Your task to perform on an android device: toggle notification dots Image 0: 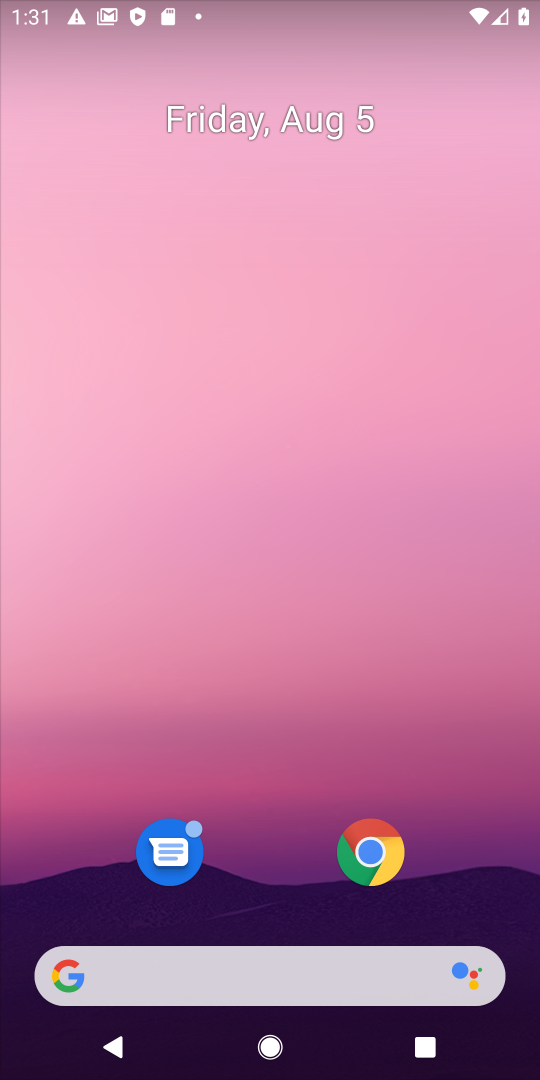
Step 0: drag from (240, 886) to (267, 68)
Your task to perform on an android device: toggle notification dots Image 1: 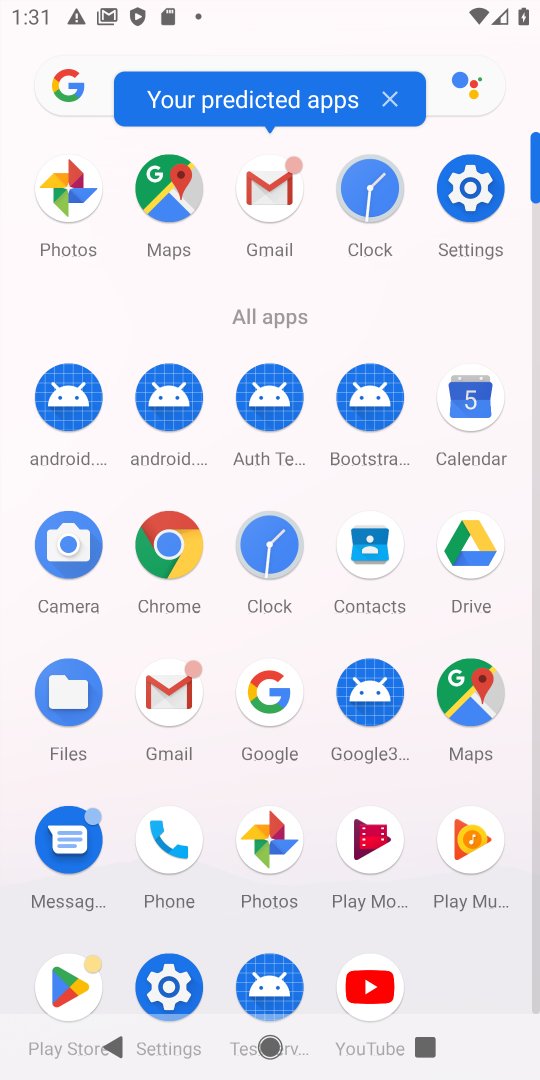
Step 1: click (478, 185)
Your task to perform on an android device: toggle notification dots Image 2: 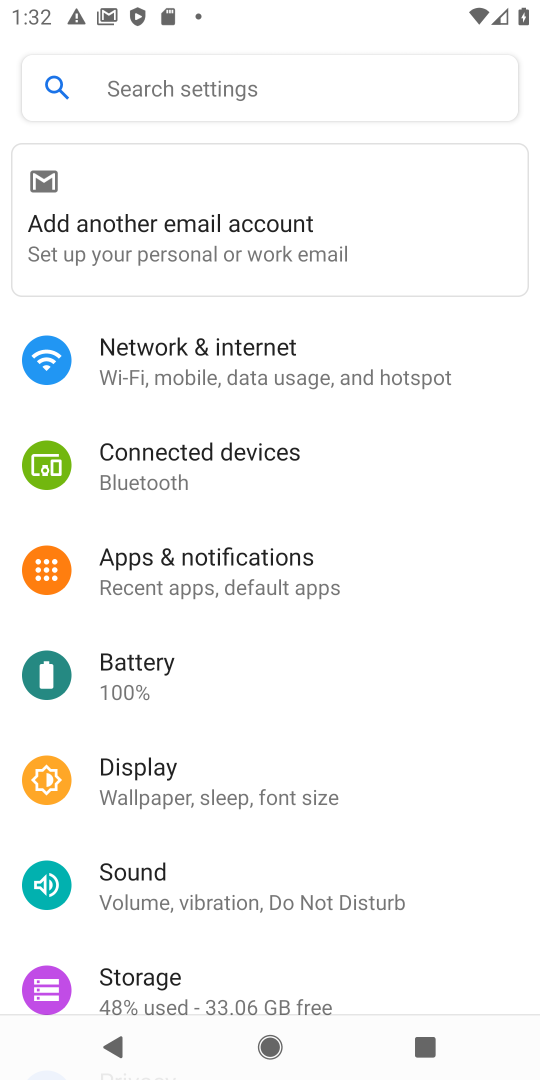
Step 2: click (212, 548)
Your task to perform on an android device: toggle notification dots Image 3: 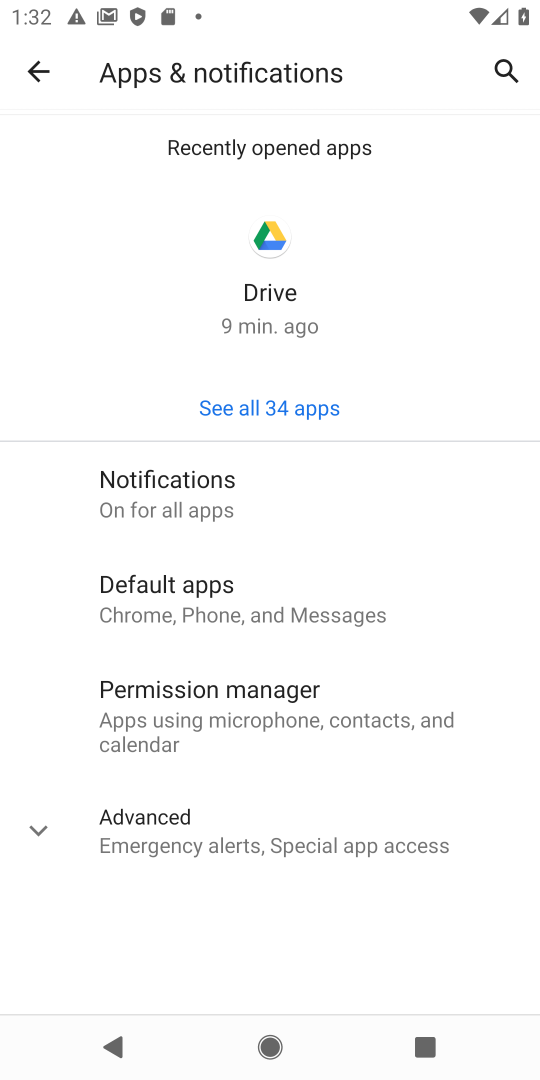
Step 3: click (190, 476)
Your task to perform on an android device: toggle notification dots Image 4: 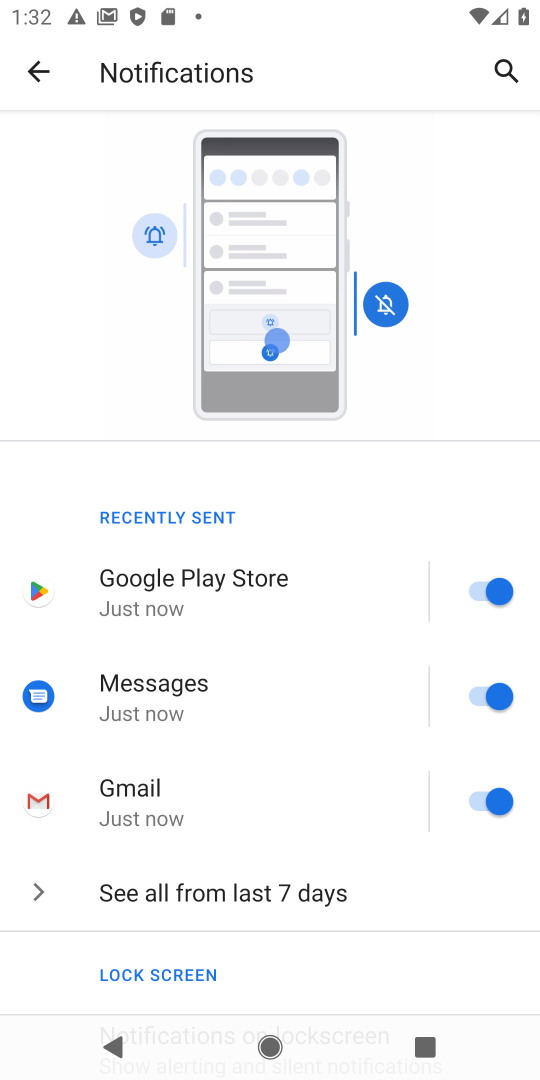
Step 4: drag from (284, 927) to (291, 429)
Your task to perform on an android device: toggle notification dots Image 5: 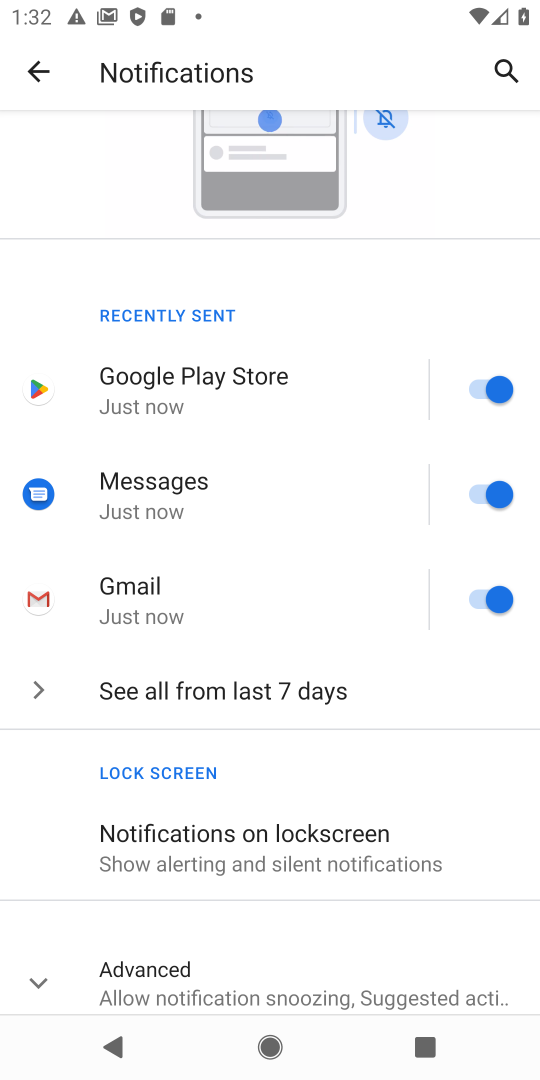
Step 5: click (39, 983)
Your task to perform on an android device: toggle notification dots Image 6: 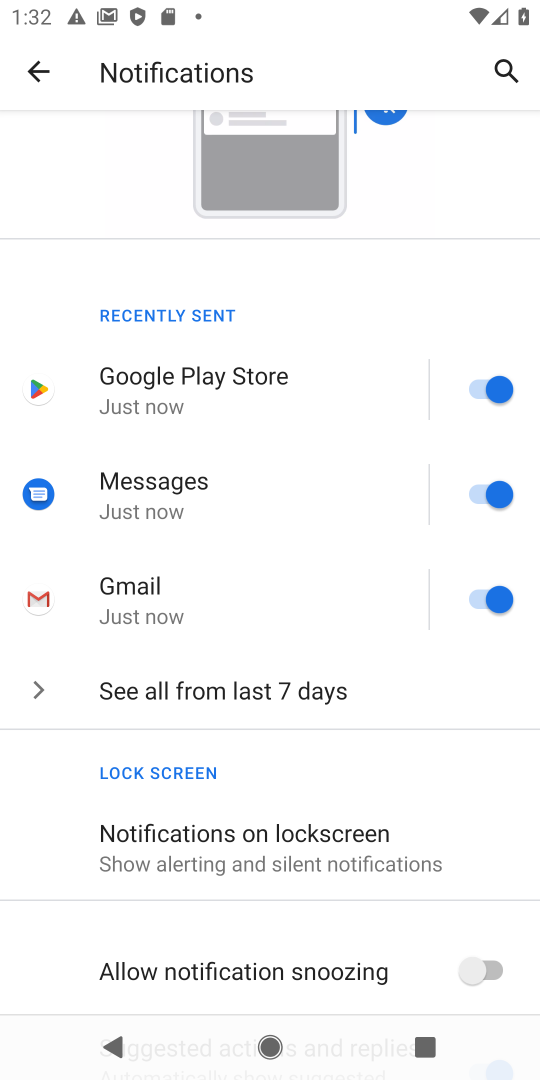
Step 6: drag from (189, 753) to (205, 314)
Your task to perform on an android device: toggle notification dots Image 7: 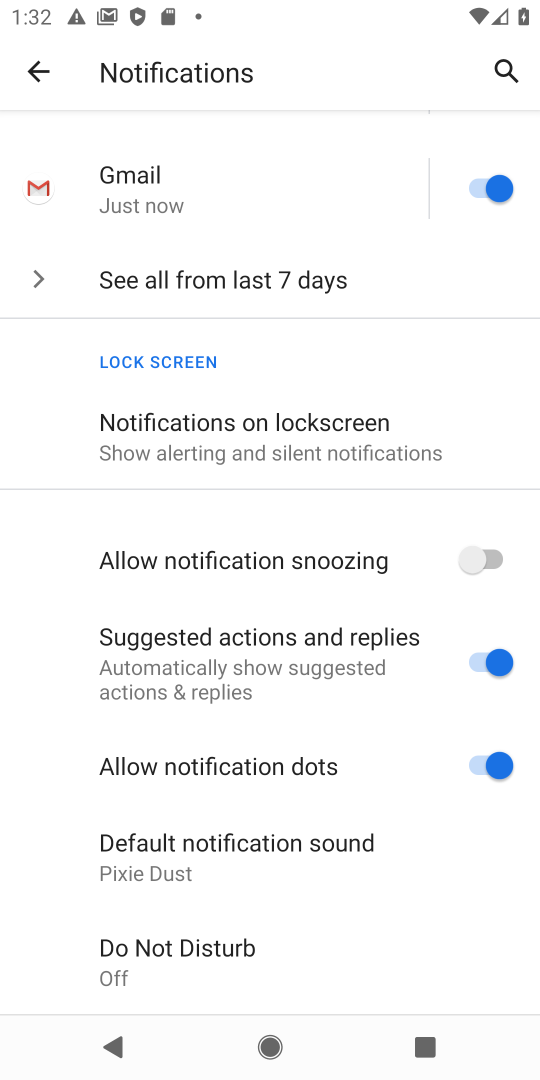
Step 7: click (492, 768)
Your task to perform on an android device: toggle notification dots Image 8: 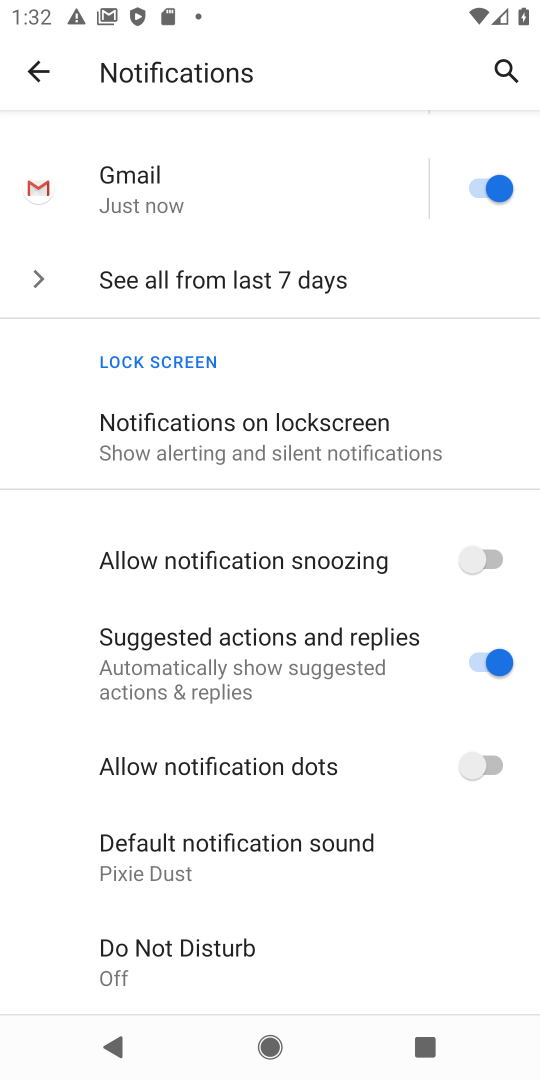
Step 8: task complete